Your task to perform on an android device: open app "LiveIn - Share Your Moment" (install if not already installed) and enter user name: "certifies@gmail.com" and password: "compartmented" Image 0: 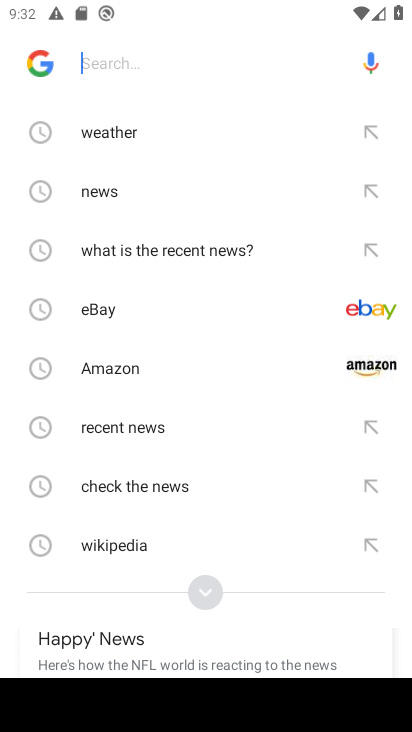
Step 0: press back button
Your task to perform on an android device: open app "LiveIn - Share Your Moment" (install if not already installed) and enter user name: "certifies@gmail.com" and password: "compartmented" Image 1: 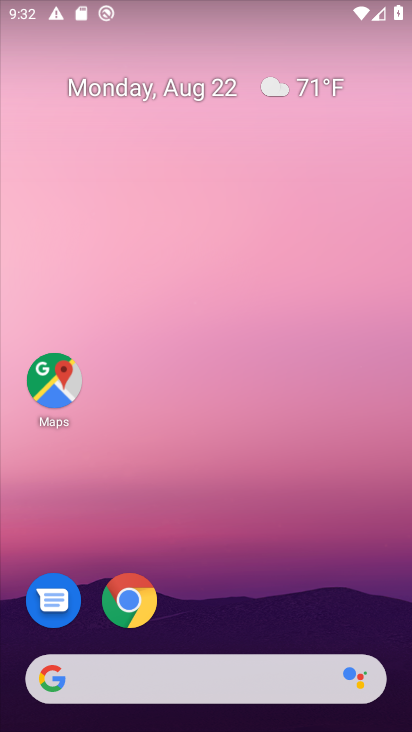
Step 1: drag from (206, 580) to (221, 132)
Your task to perform on an android device: open app "LiveIn - Share Your Moment" (install if not already installed) and enter user name: "certifies@gmail.com" and password: "compartmented" Image 2: 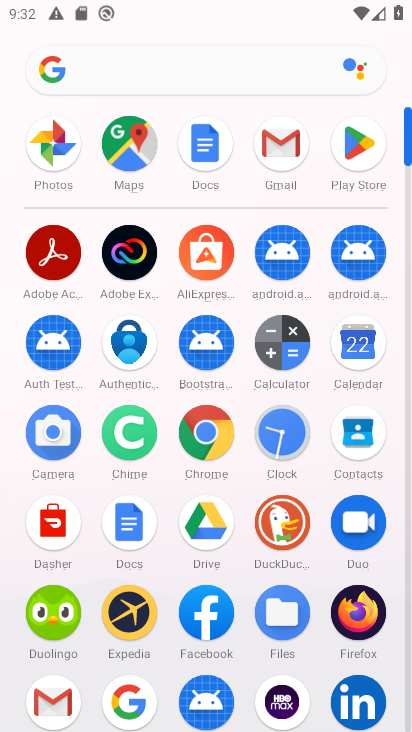
Step 2: click (350, 138)
Your task to perform on an android device: open app "LiveIn - Share Your Moment" (install if not already installed) and enter user name: "certifies@gmail.com" and password: "compartmented" Image 3: 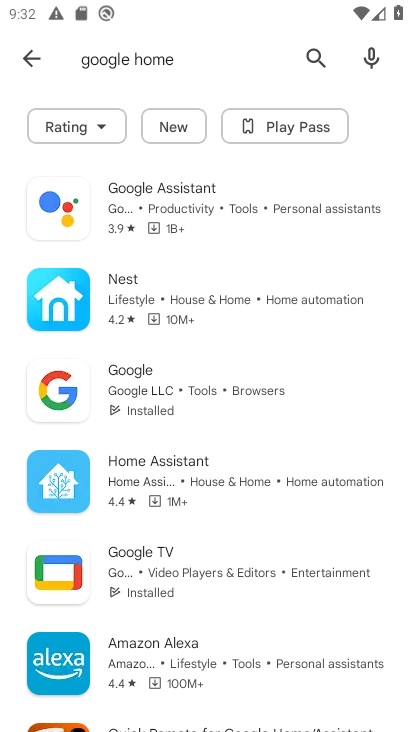
Step 3: click (305, 49)
Your task to perform on an android device: open app "LiveIn - Share Your Moment" (install if not already installed) and enter user name: "certifies@gmail.com" and password: "compartmented" Image 4: 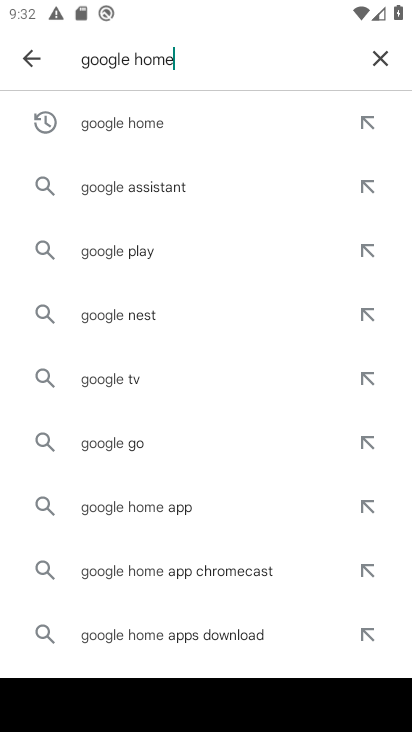
Step 4: click (371, 50)
Your task to perform on an android device: open app "LiveIn - Share Your Moment" (install if not already installed) and enter user name: "certifies@gmail.com" and password: "compartmented" Image 5: 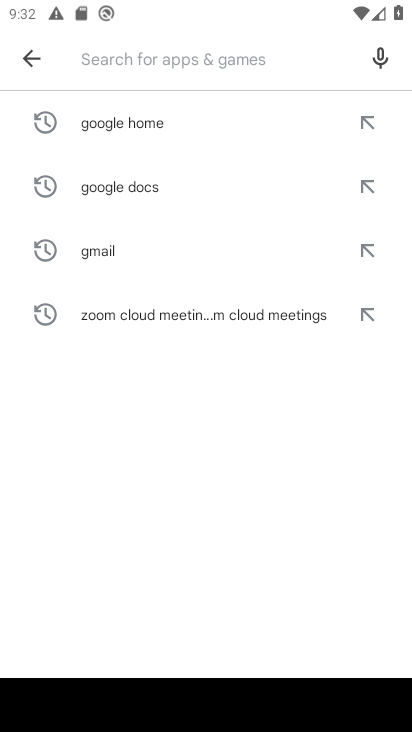
Step 5: type "LiveIn - Share Your Moment"
Your task to perform on an android device: open app "LiveIn - Share Your Moment" (install if not already installed) and enter user name: "certifies@gmail.com" and password: "compartmented" Image 6: 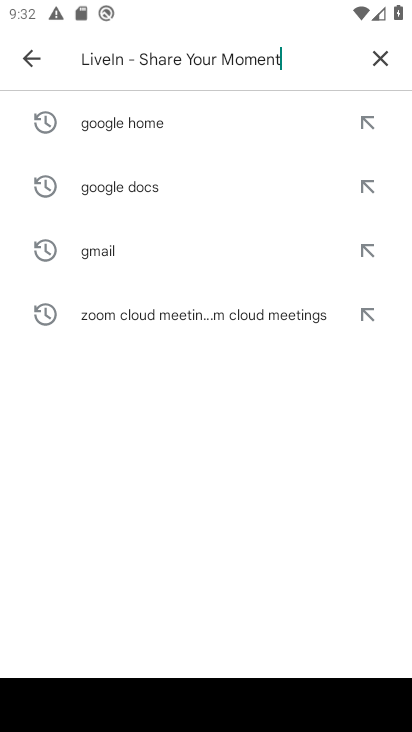
Step 6: type ""
Your task to perform on an android device: open app "LiveIn - Share Your Moment" (install if not already installed) and enter user name: "certifies@gmail.com" and password: "compartmented" Image 7: 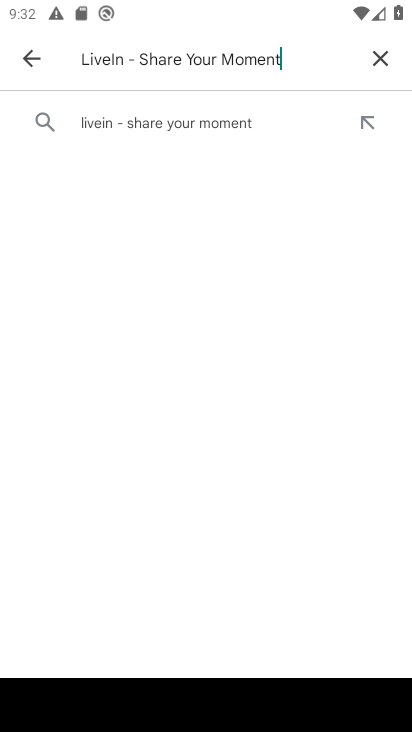
Step 7: click (152, 118)
Your task to perform on an android device: open app "LiveIn - Share Your Moment" (install if not already installed) and enter user name: "certifies@gmail.com" and password: "compartmented" Image 8: 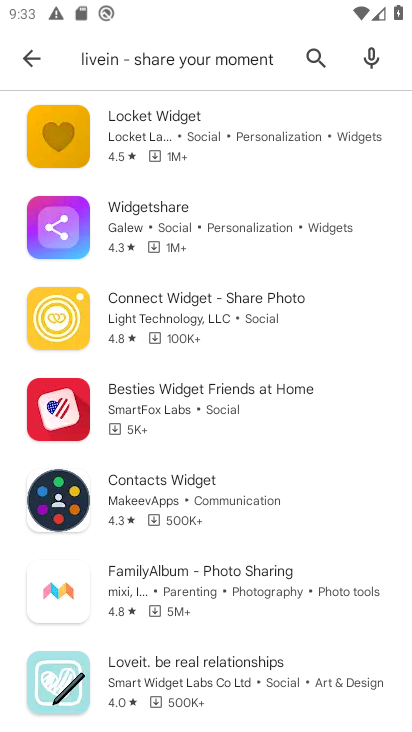
Step 8: task complete